Your task to perform on an android device: Is it going to rain tomorrow? Image 0: 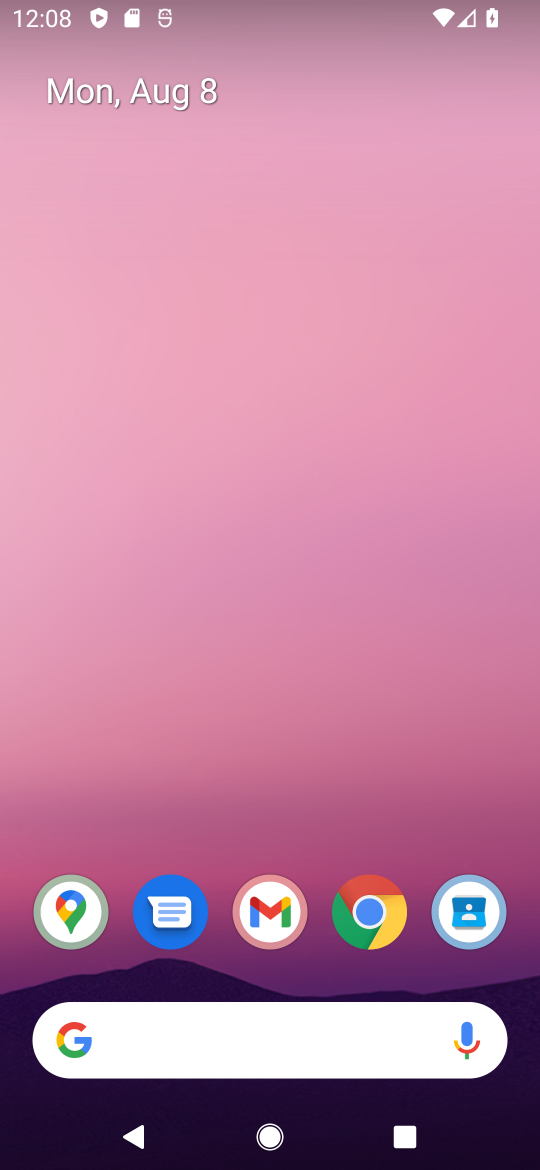
Step 0: drag from (272, 989) to (438, 117)
Your task to perform on an android device: Is it going to rain tomorrow? Image 1: 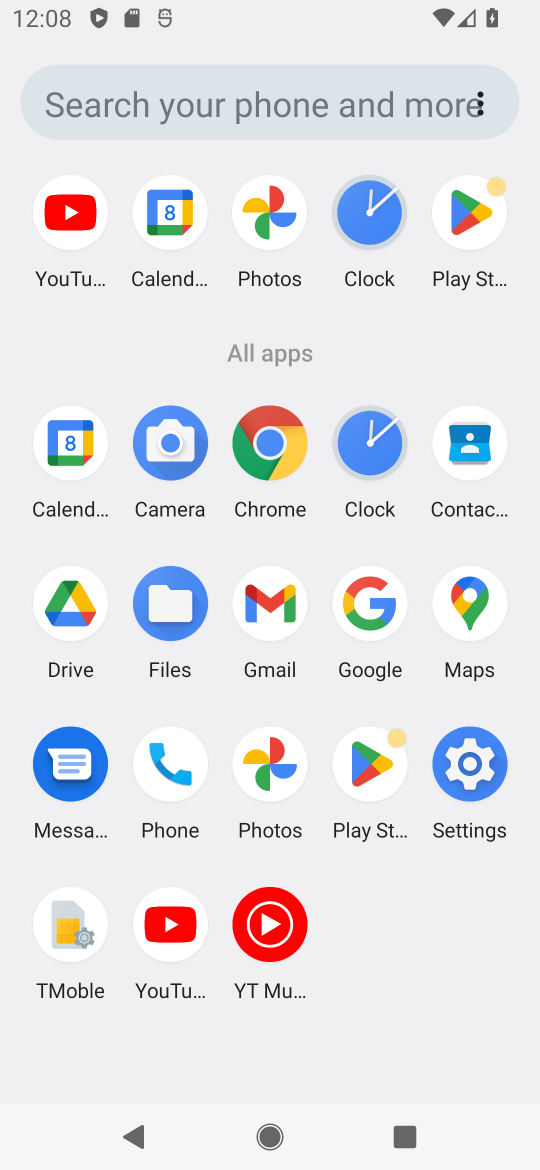
Step 1: click (374, 600)
Your task to perform on an android device: Is it going to rain tomorrow? Image 2: 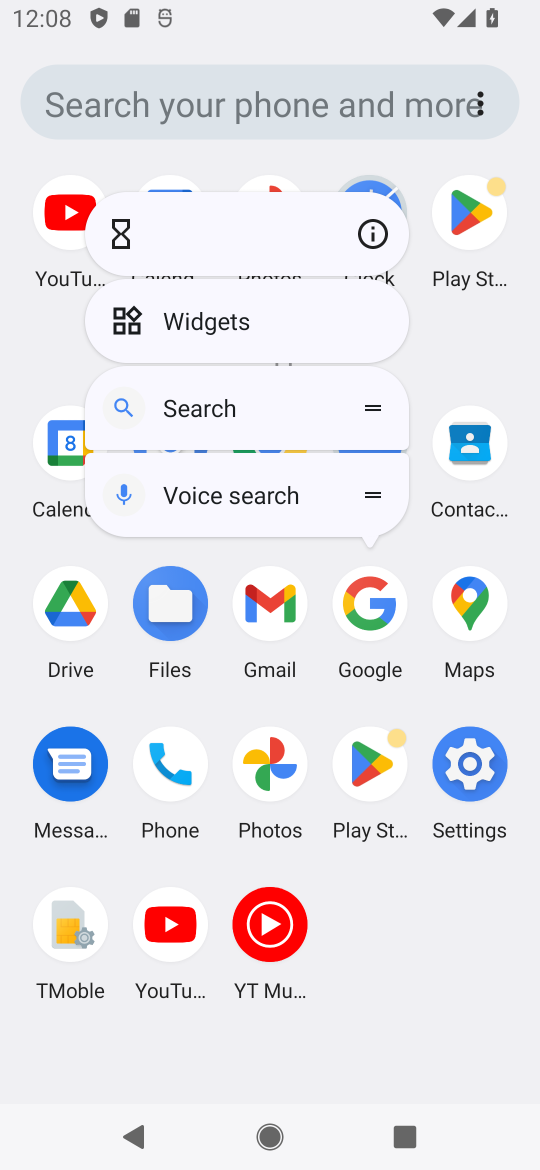
Step 2: click (374, 600)
Your task to perform on an android device: Is it going to rain tomorrow? Image 3: 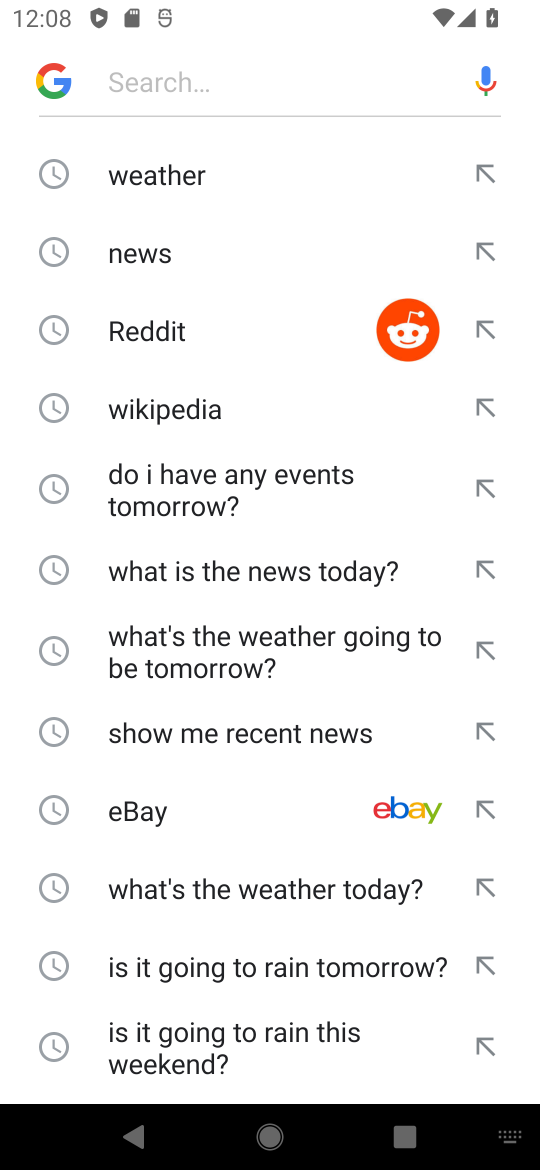
Step 3: click (152, 169)
Your task to perform on an android device: Is it going to rain tomorrow? Image 4: 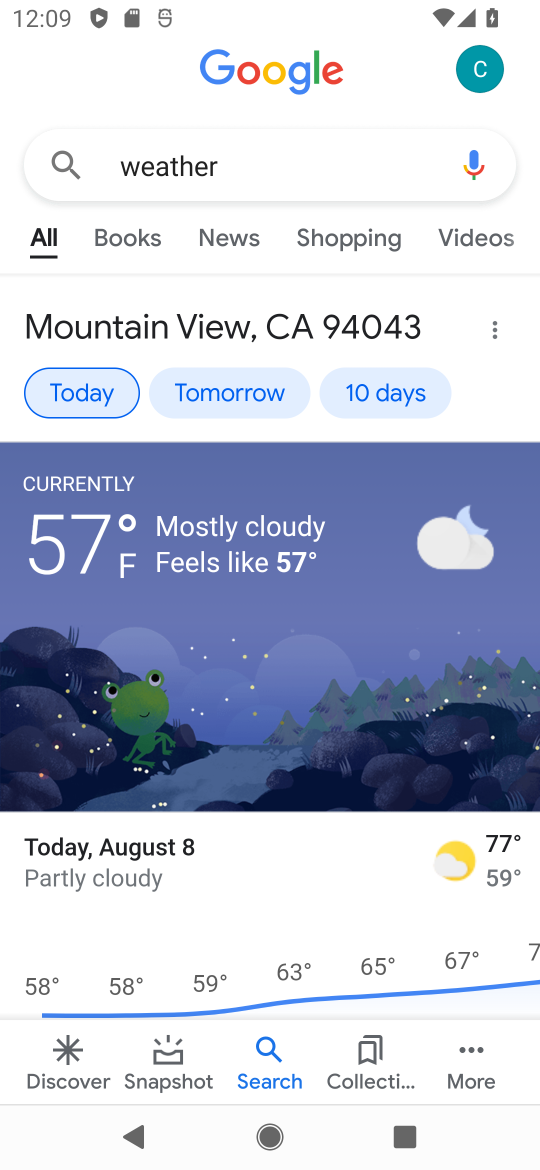
Step 4: click (190, 396)
Your task to perform on an android device: Is it going to rain tomorrow? Image 5: 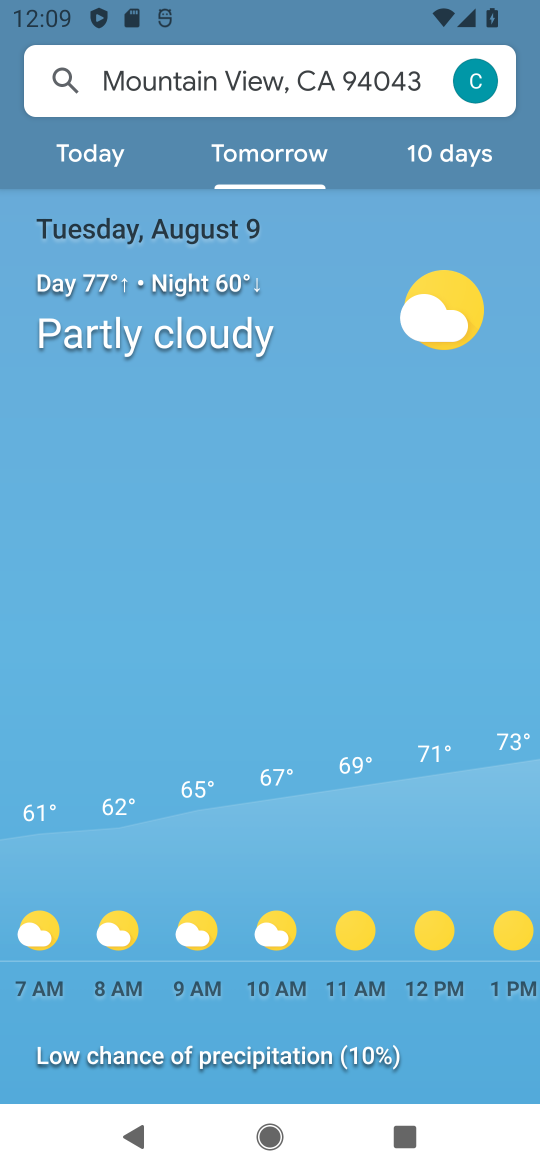
Step 5: task complete